Your task to perform on an android device: check battery use Image 0: 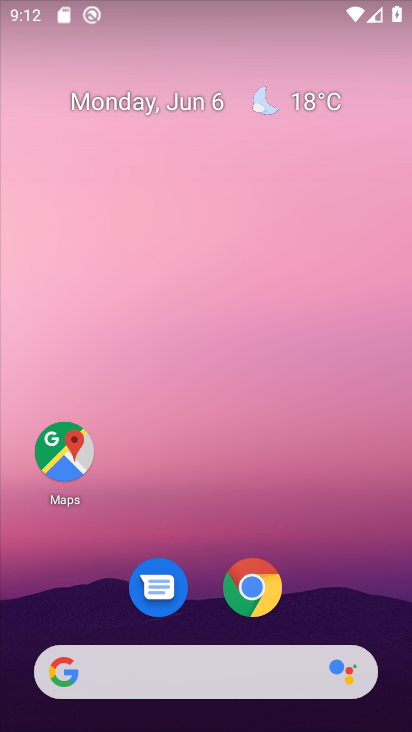
Step 0: drag from (58, 631) to (242, 141)
Your task to perform on an android device: check battery use Image 1: 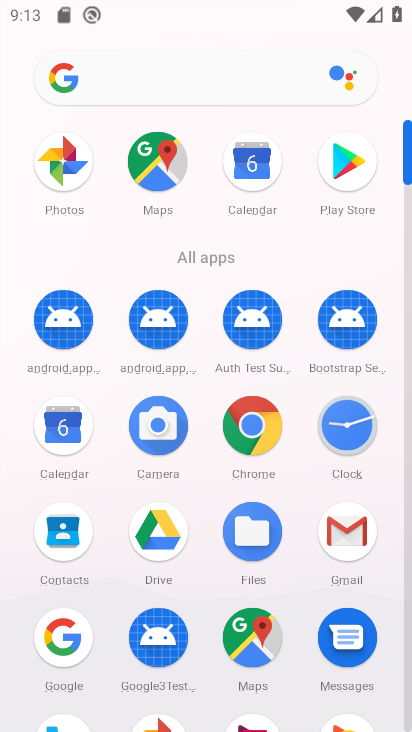
Step 1: drag from (165, 650) to (243, 359)
Your task to perform on an android device: check battery use Image 2: 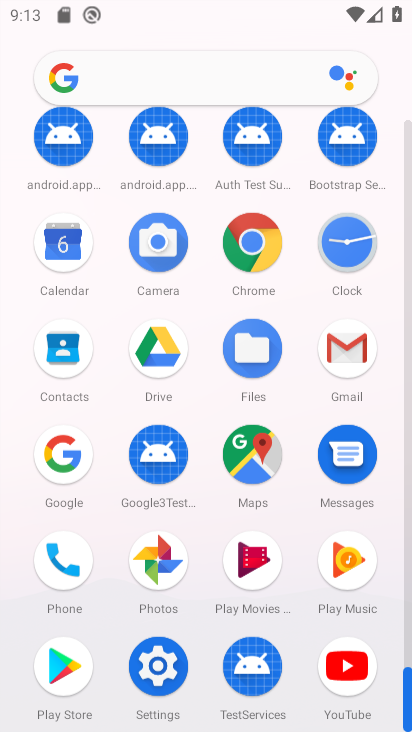
Step 2: click (165, 667)
Your task to perform on an android device: check battery use Image 3: 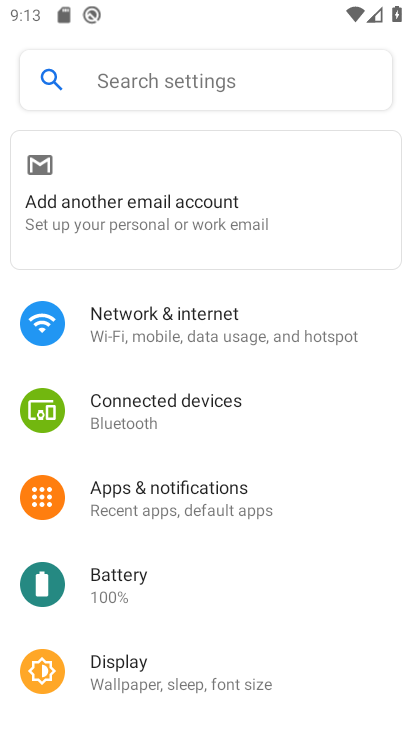
Step 3: click (194, 568)
Your task to perform on an android device: check battery use Image 4: 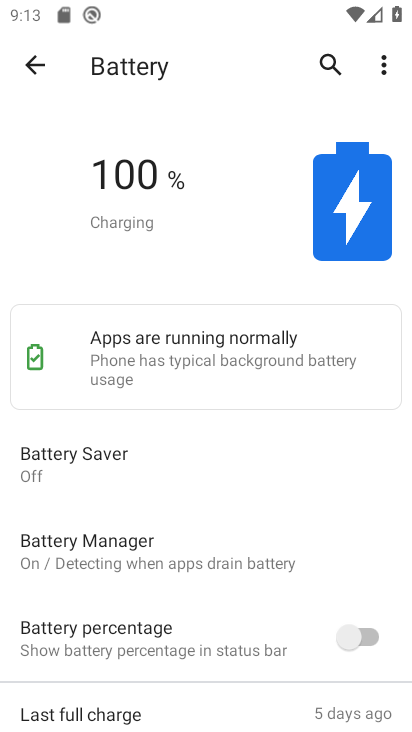
Step 4: click (383, 65)
Your task to perform on an android device: check battery use Image 5: 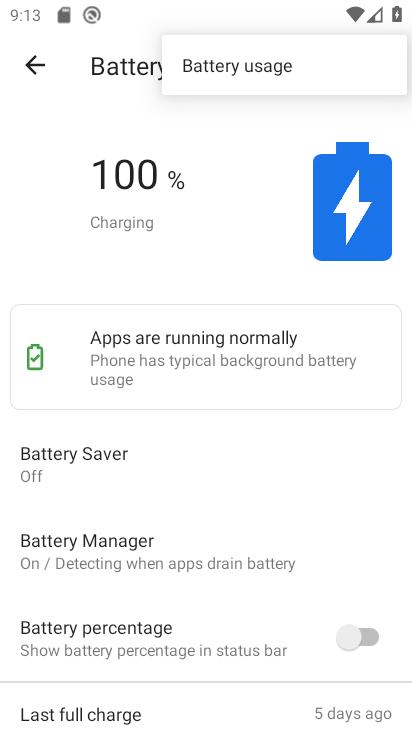
Step 5: click (364, 76)
Your task to perform on an android device: check battery use Image 6: 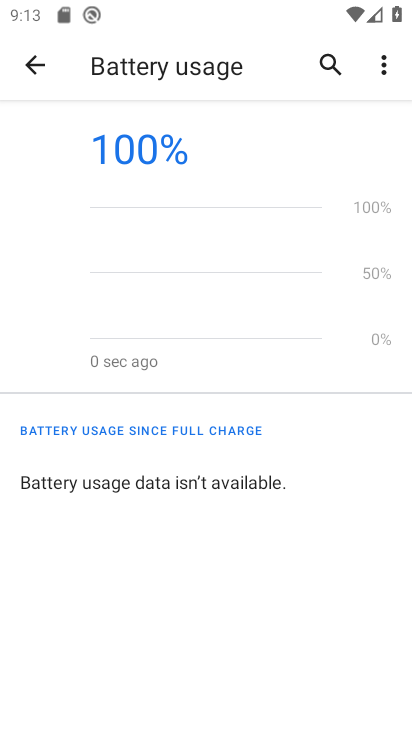
Step 6: task complete